Your task to perform on an android device: toggle data saver in the chrome app Image 0: 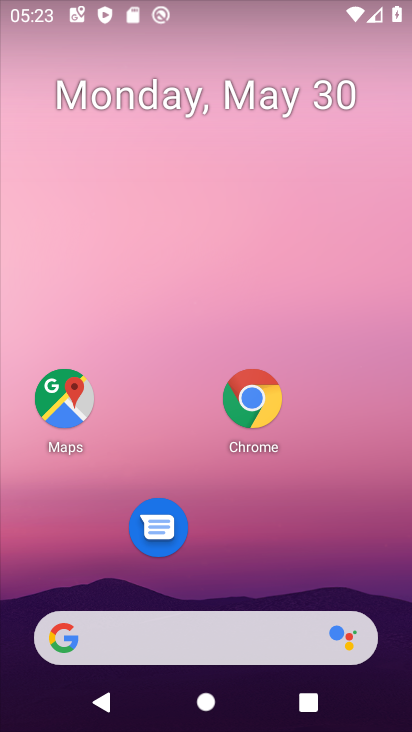
Step 0: click (251, 403)
Your task to perform on an android device: toggle data saver in the chrome app Image 1: 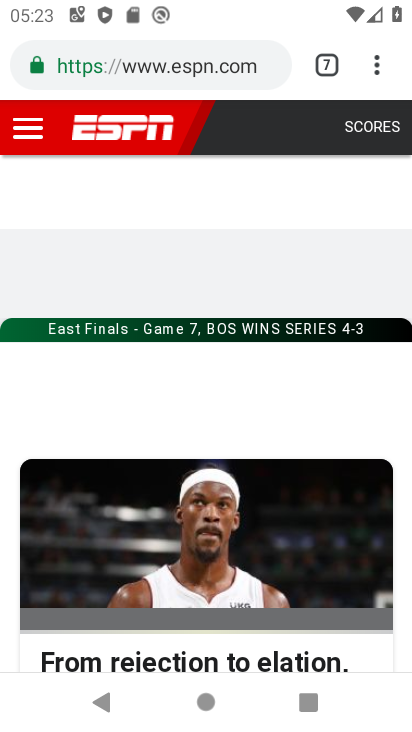
Step 1: click (373, 68)
Your task to perform on an android device: toggle data saver in the chrome app Image 2: 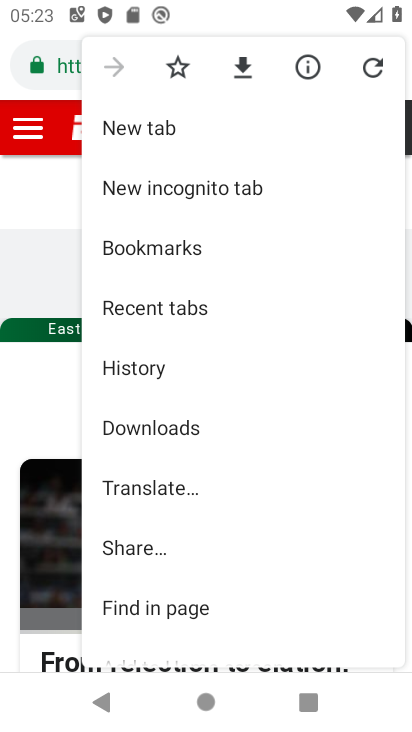
Step 2: drag from (200, 577) to (199, 220)
Your task to perform on an android device: toggle data saver in the chrome app Image 3: 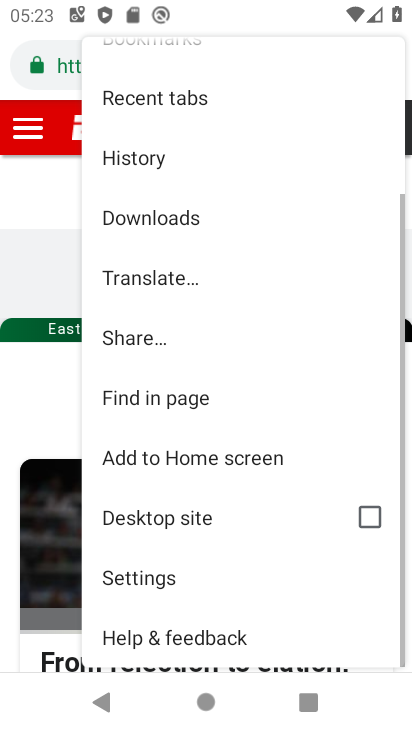
Step 3: click (147, 571)
Your task to perform on an android device: toggle data saver in the chrome app Image 4: 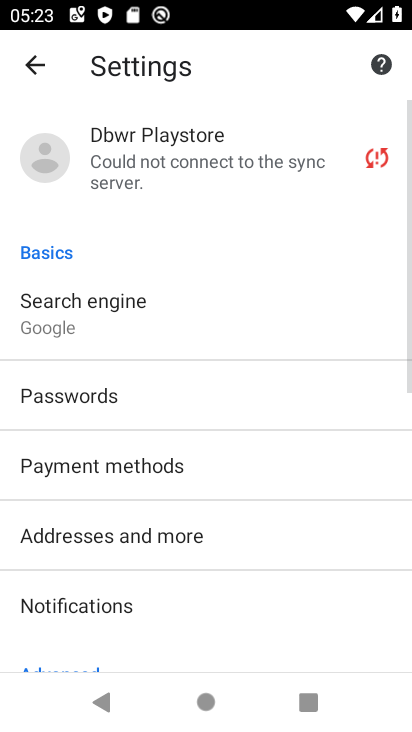
Step 4: drag from (144, 603) to (149, 142)
Your task to perform on an android device: toggle data saver in the chrome app Image 5: 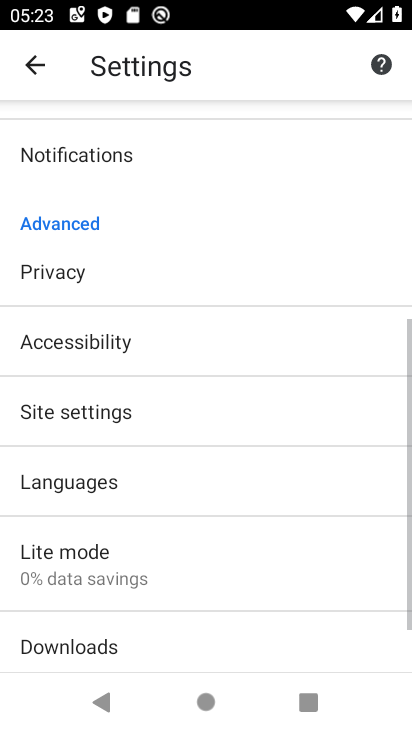
Step 5: click (69, 565)
Your task to perform on an android device: toggle data saver in the chrome app Image 6: 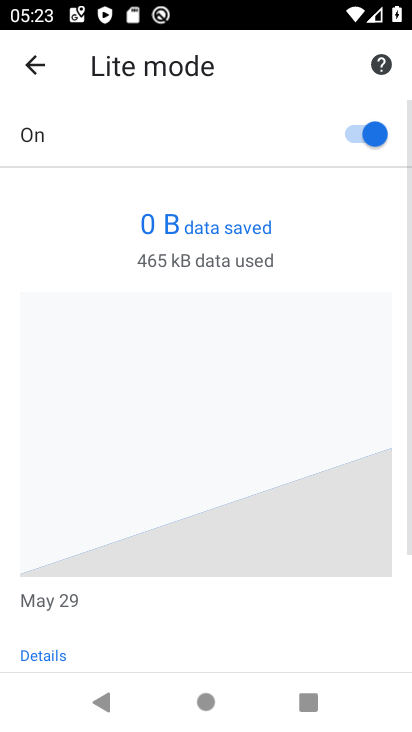
Step 6: click (357, 130)
Your task to perform on an android device: toggle data saver in the chrome app Image 7: 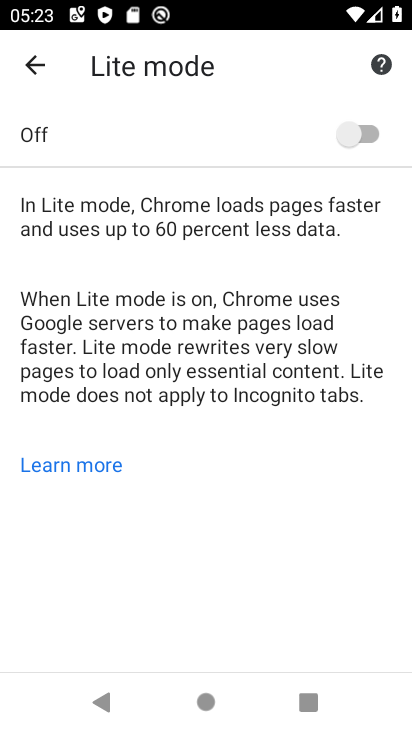
Step 7: task complete